Your task to perform on an android device: Open the stopwatch Image 0: 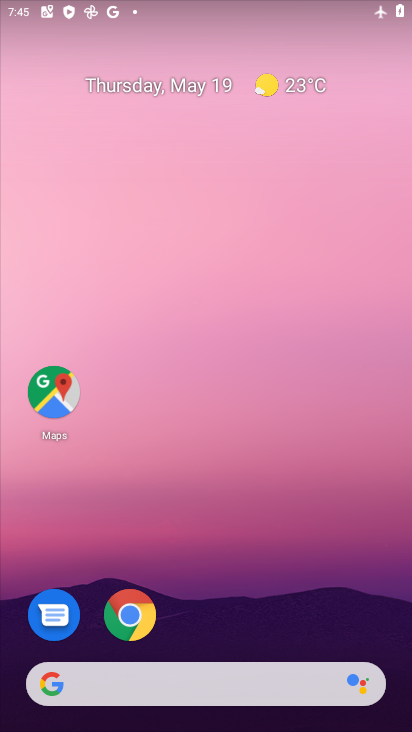
Step 0: drag from (344, 631) to (277, 76)
Your task to perform on an android device: Open the stopwatch Image 1: 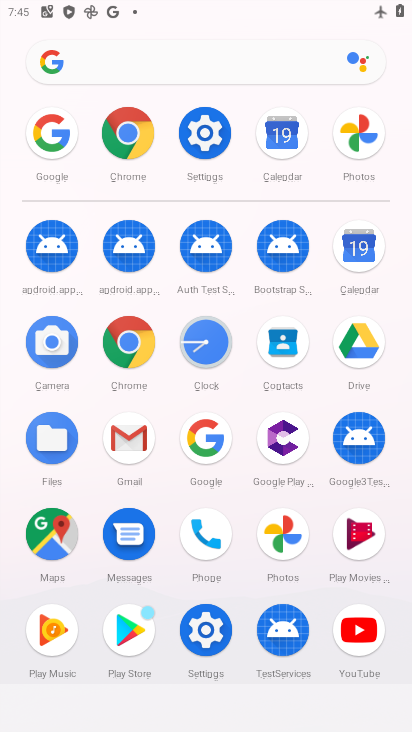
Step 1: click (217, 342)
Your task to perform on an android device: Open the stopwatch Image 2: 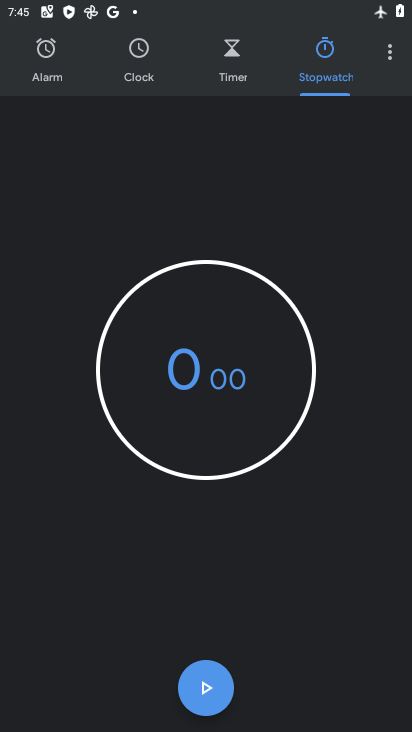
Step 2: task complete